Your task to perform on an android device: Open battery settings Image 0: 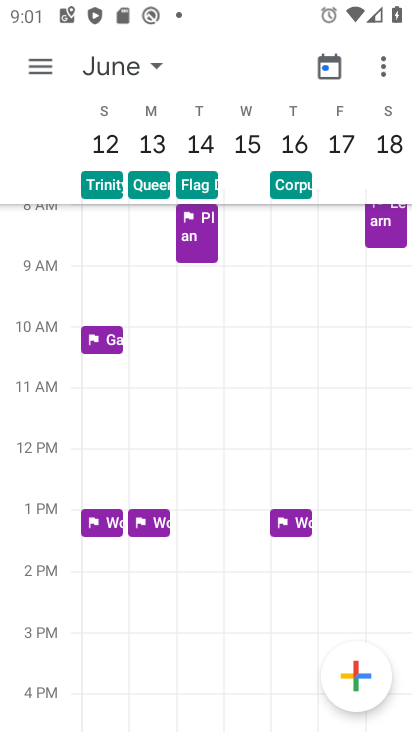
Step 0: press home button
Your task to perform on an android device: Open battery settings Image 1: 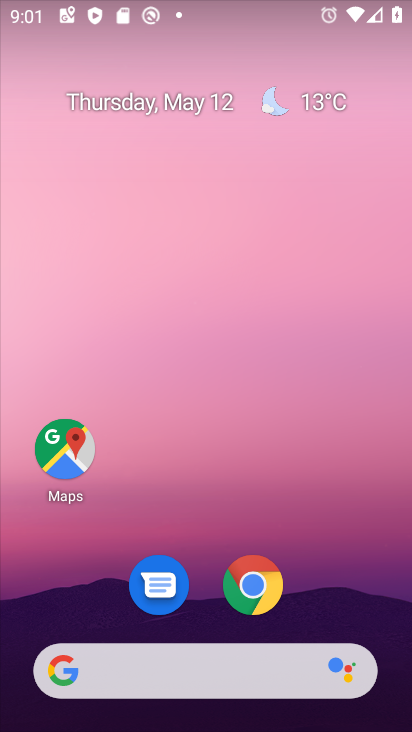
Step 1: drag from (220, 455) to (201, 58)
Your task to perform on an android device: Open battery settings Image 2: 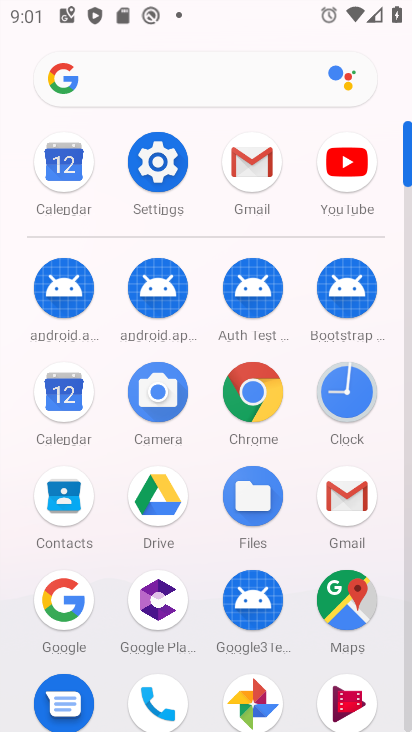
Step 2: click (157, 172)
Your task to perform on an android device: Open battery settings Image 3: 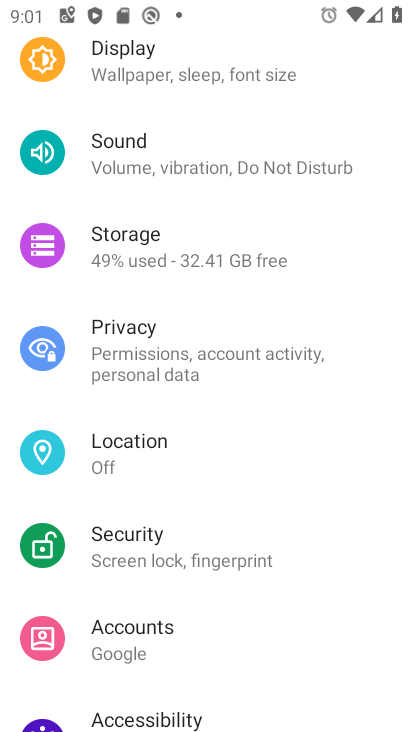
Step 3: drag from (210, 118) to (221, 578)
Your task to perform on an android device: Open battery settings Image 4: 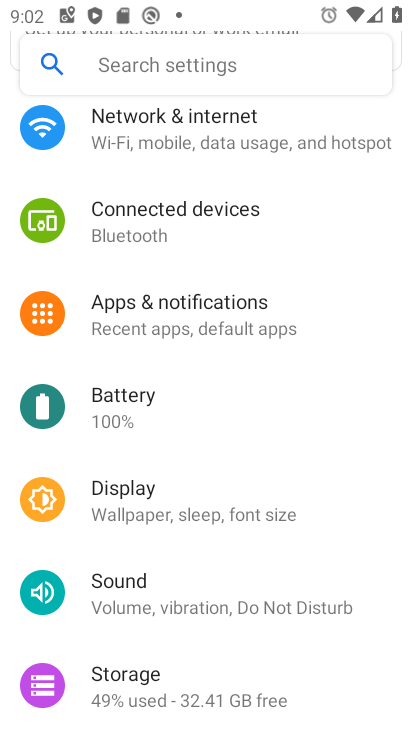
Step 4: click (180, 416)
Your task to perform on an android device: Open battery settings Image 5: 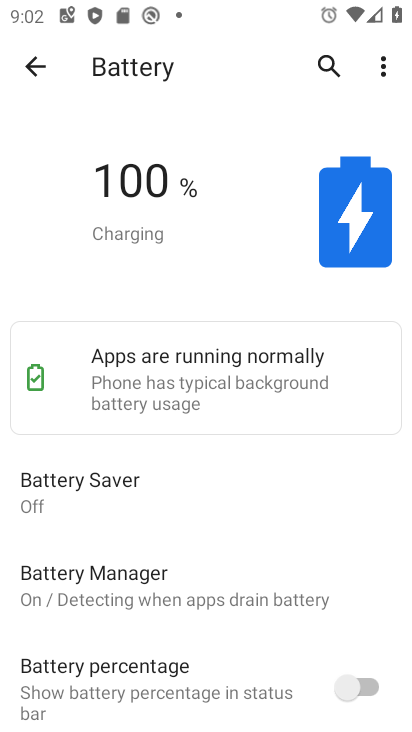
Step 5: task complete